Your task to perform on an android device: clear all cookies in the chrome app Image 0: 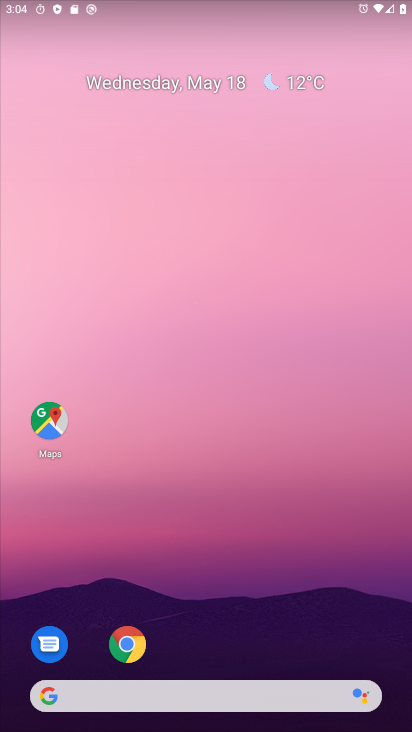
Step 0: click (125, 636)
Your task to perform on an android device: clear all cookies in the chrome app Image 1: 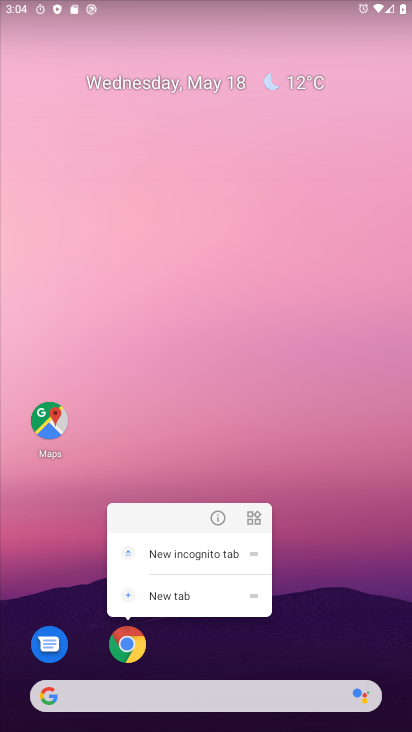
Step 1: click (125, 636)
Your task to perform on an android device: clear all cookies in the chrome app Image 2: 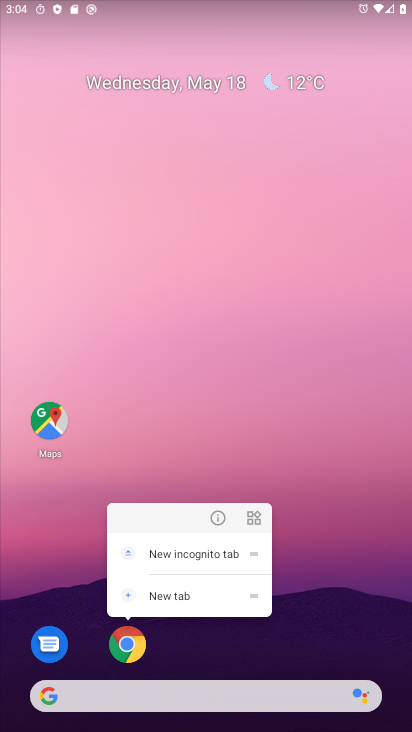
Step 2: click (337, 588)
Your task to perform on an android device: clear all cookies in the chrome app Image 3: 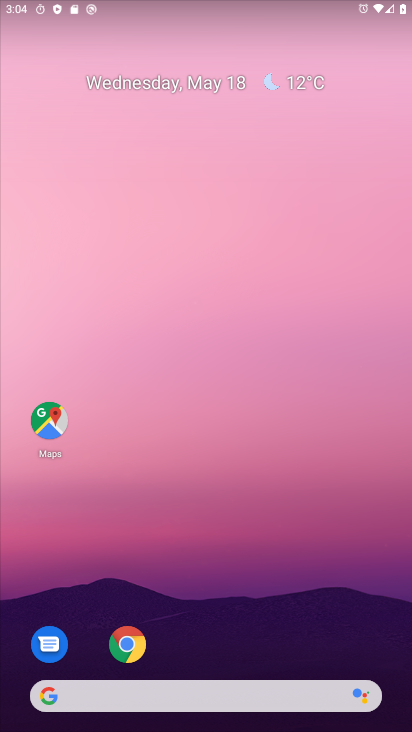
Step 3: click (123, 642)
Your task to perform on an android device: clear all cookies in the chrome app Image 4: 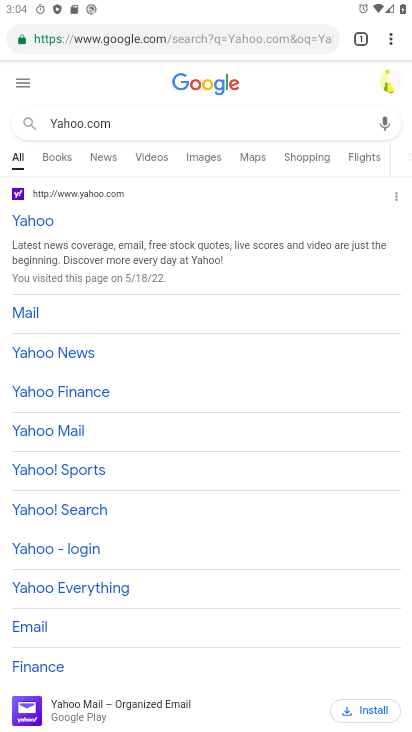
Step 4: click (385, 37)
Your task to perform on an android device: clear all cookies in the chrome app Image 5: 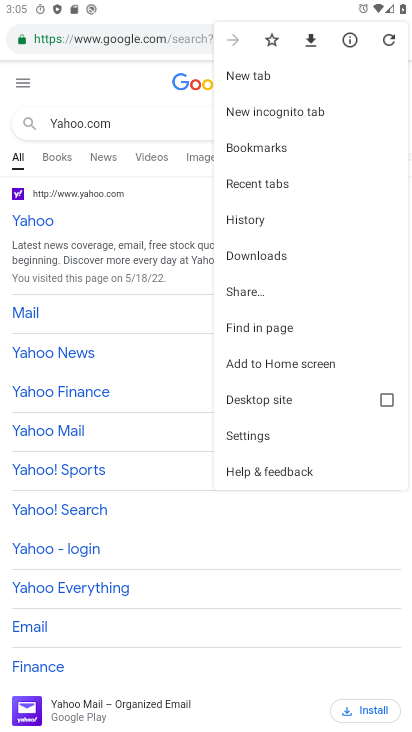
Step 5: click (244, 217)
Your task to perform on an android device: clear all cookies in the chrome app Image 6: 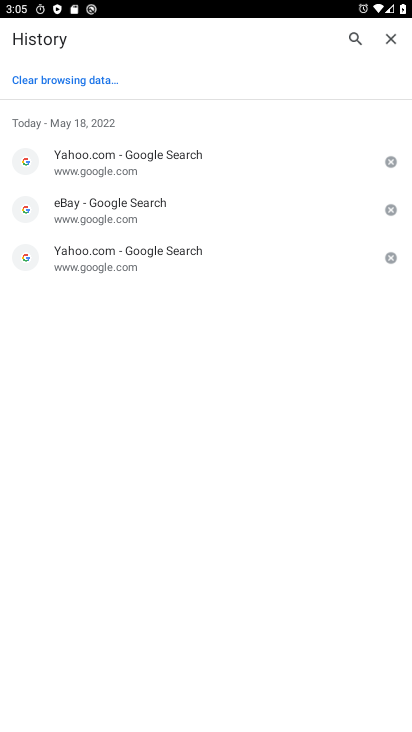
Step 6: click (70, 79)
Your task to perform on an android device: clear all cookies in the chrome app Image 7: 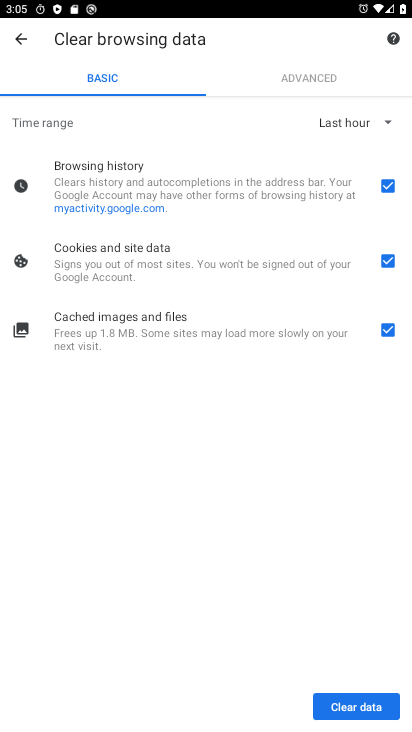
Step 7: click (340, 703)
Your task to perform on an android device: clear all cookies in the chrome app Image 8: 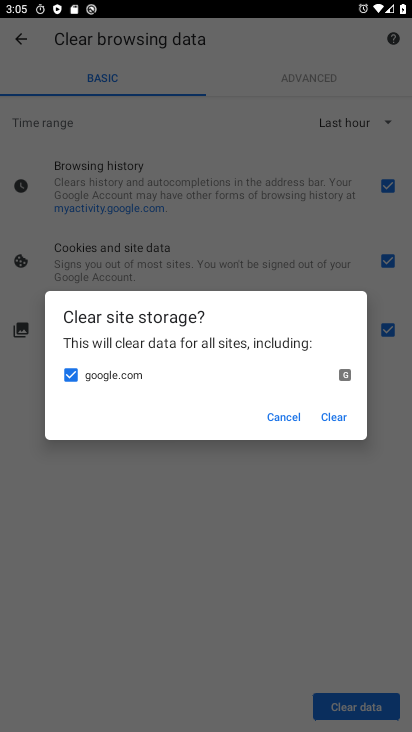
Step 8: click (331, 415)
Your task to perform on an android device: clear all cookies in the chrome app Image 9: 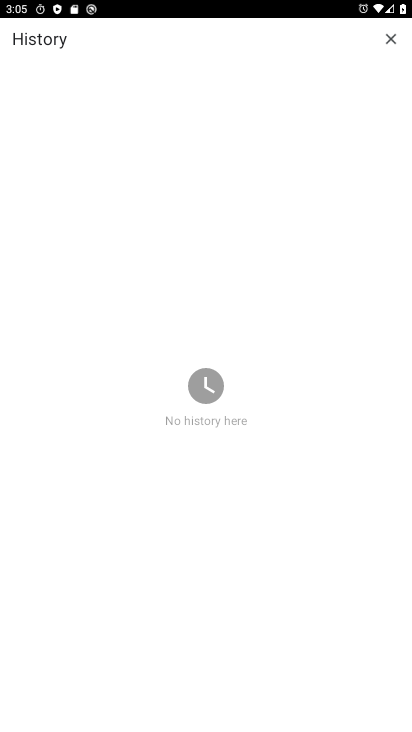
Step 9: task complete